Your task to perform on an android device: turn notification dots off Image 0: 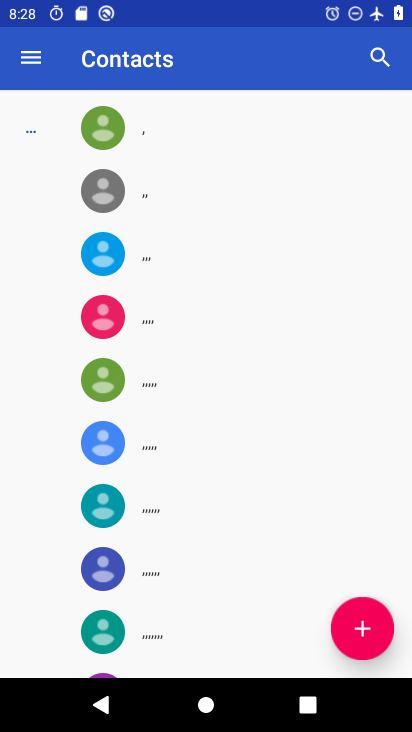
Step 0: press home button
Your task to perform on an android device: turn notification dots off Image 1: 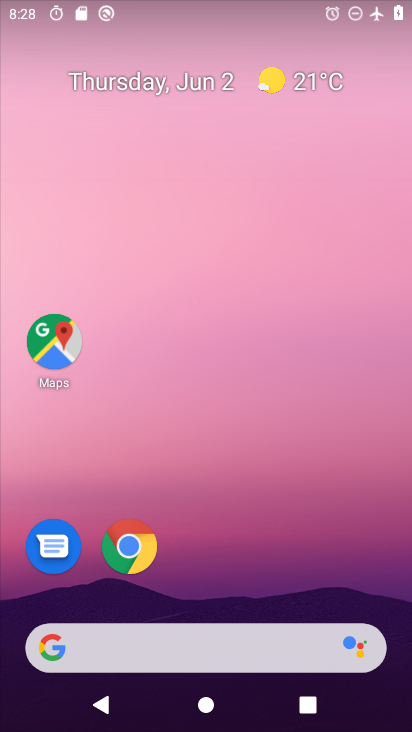
Step 1: drag from (371, 548) to (350, 109)
Your task to perform on an android device: turn notification dots off Image 2: 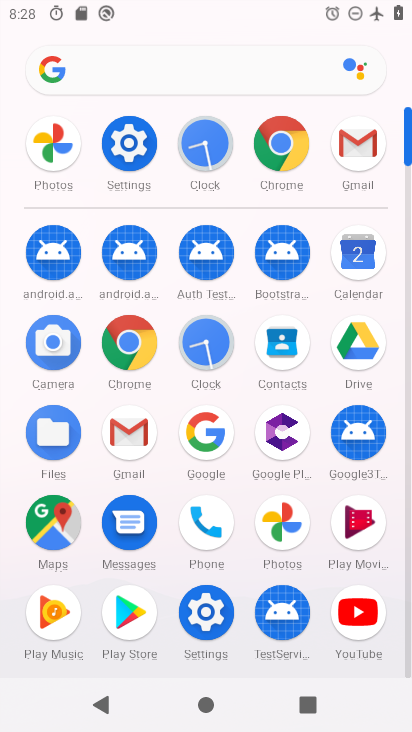
Step 2: click (111, 161)
Your task to perform on an android device: turn notification dots off Image 3: 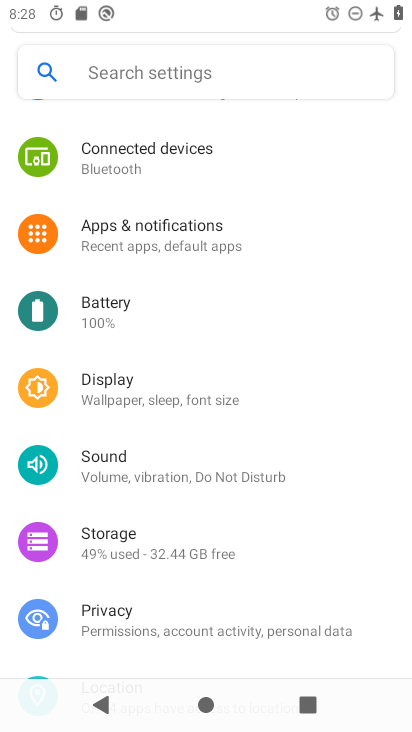
Step 3: click (205, 236)
Your task to perform on an android device: turn notification dots off Image 4: 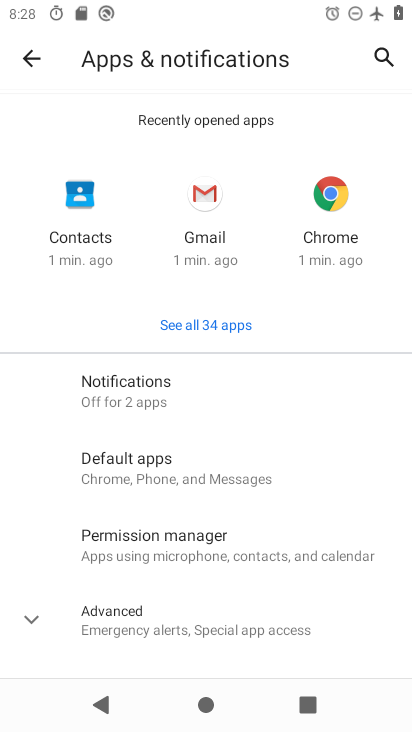
Step 4: drag from (154, 596) to (163, 239)
Your task to perform on an android device: turn notification dots off Image 5: 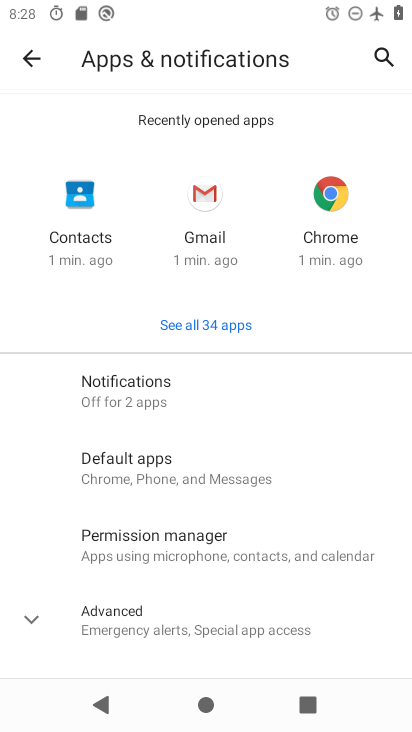
Step 5: click (170, 622)
Your task to perform on an android device: turn notification dots off Image 6: 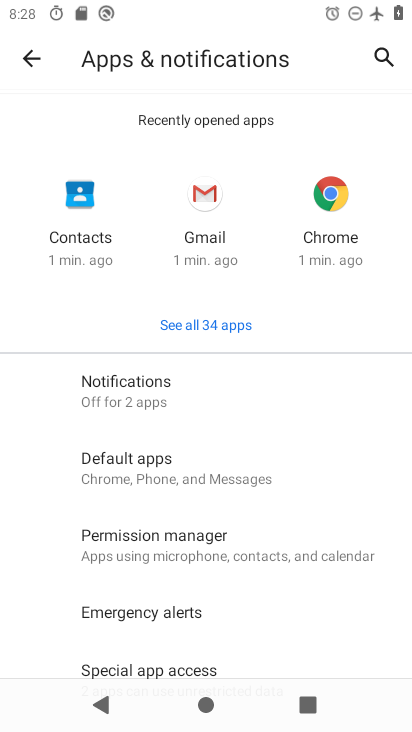
Step 6: drag from (280, 635) to (318, 316)
Your task to perform on an android device: turn notification dots off Image 7: 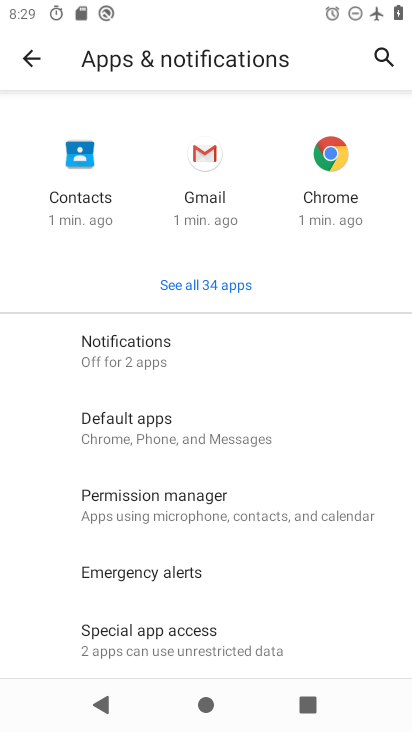
Step 7: click (205, 639)
Your task to perform on an android device: turn notification dots off Image 8: 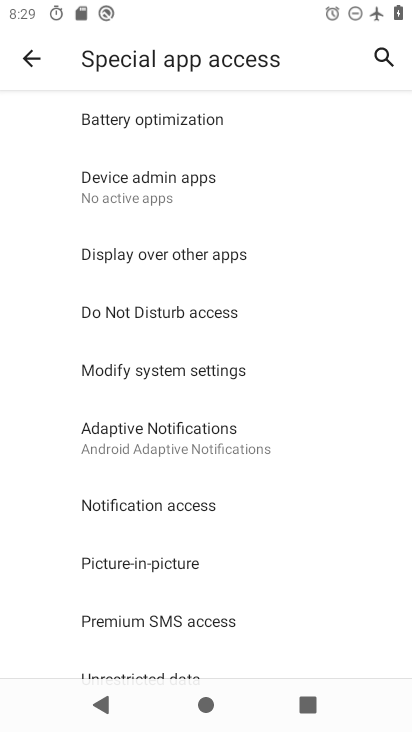
Step 8: click (12, 39)
Your task to perform on an android device: turn notification dots off Image 9: 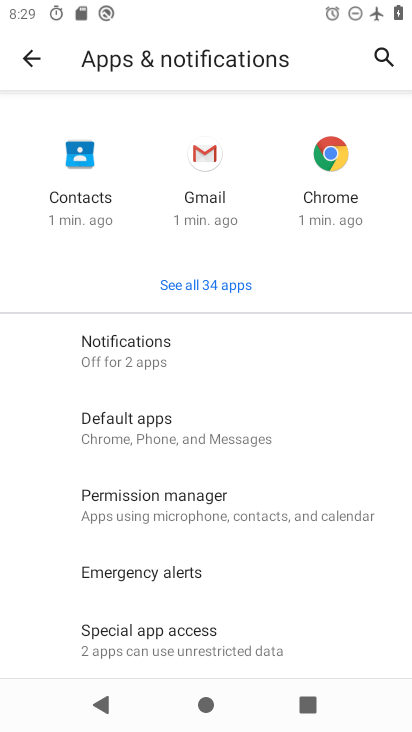
Step 9: click (122, 358)
Your task to perform on an android device: turn notification dots off Image 10: 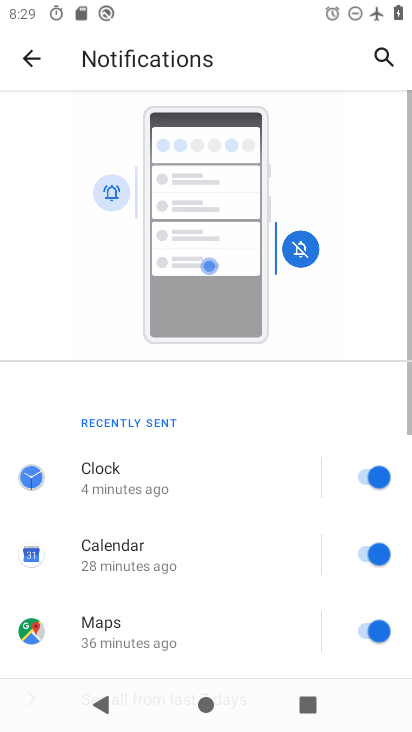
Step 10: drag from (151, 582) to (202, 288)
Your task to perform on an android device: turn notification dots off Image 11: 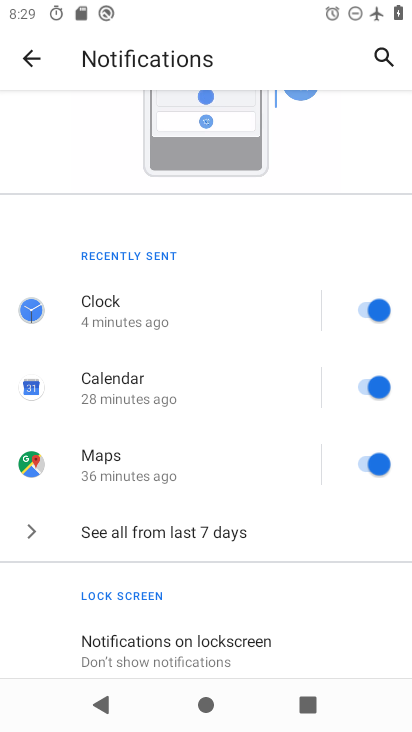
Step 11: drag from (150, 606) to (222, 380)
Your task to perform on an android device: turn notification dots off Image 12: 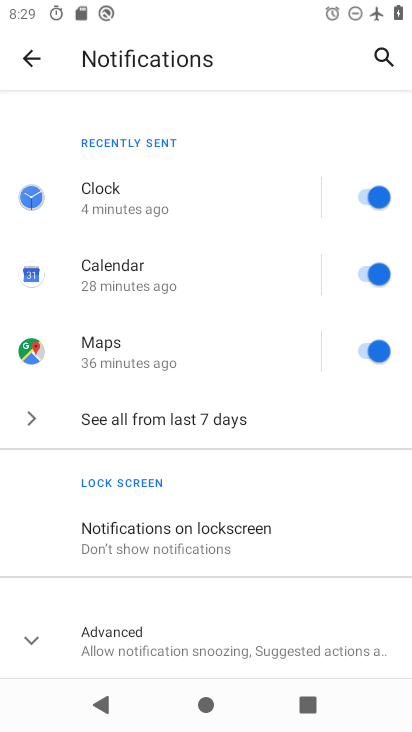
Step 12: click (196, 635)
Your task to perform on an android device: turn notification dots off Image 13: 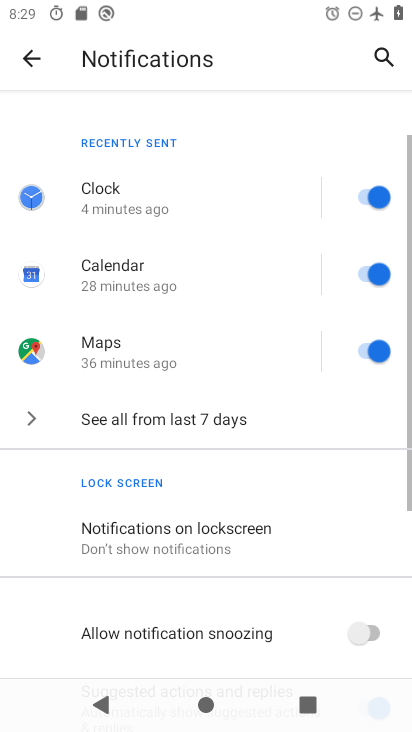
Step 13: drag from (193, 636) to (210, 334)
Your task to perform on an android device: turn notification dots off Image 14: 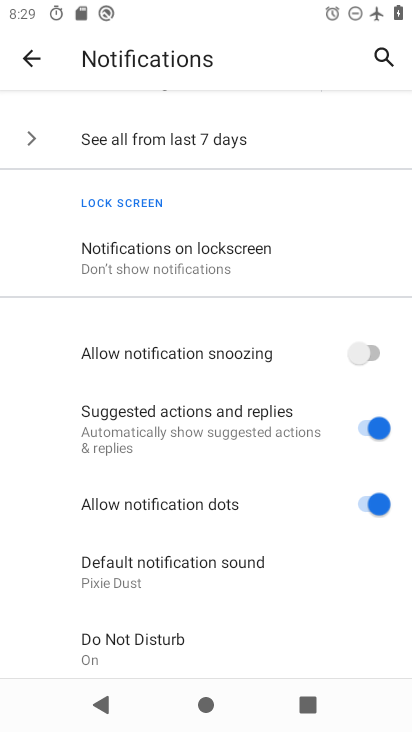
Step 14: click (365, 505)
Your task to perform on an android device: turn notification dots off Image 15: 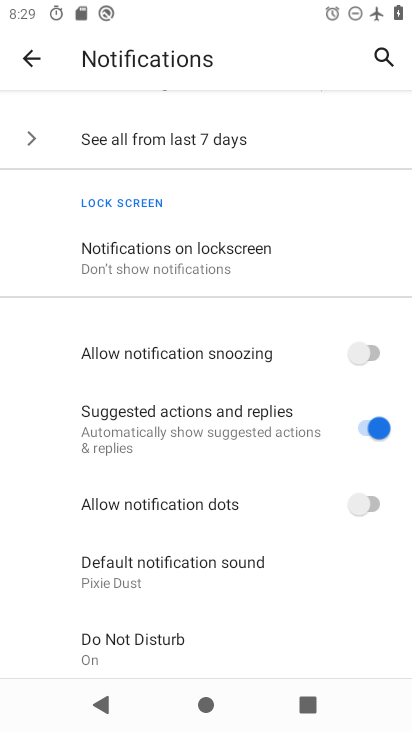
Step 15: task complete